Your task to perform on an android device: check the backup settings in the google photos Image 0: 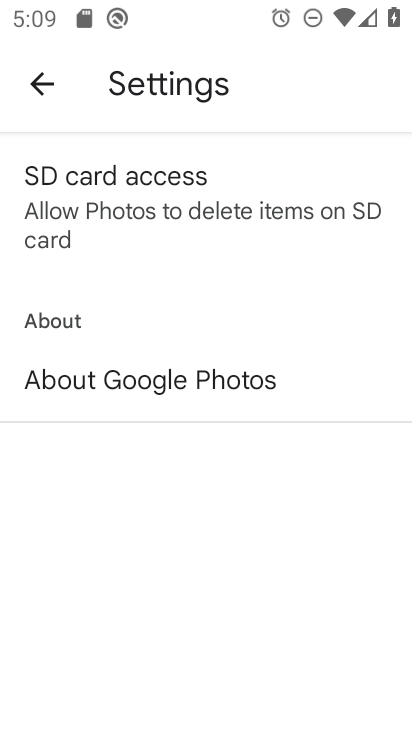
Step 0: press home button
Your task to perform on an android device: check the backup settings in the google photos Image 1: 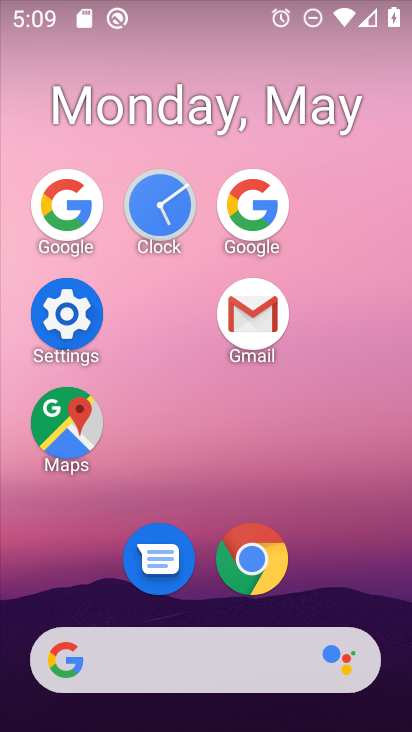
Step 1: drag from (326, 576) to (308, 76)
Your task to perform on an android device: check the backup settings in the google photos Image 2: 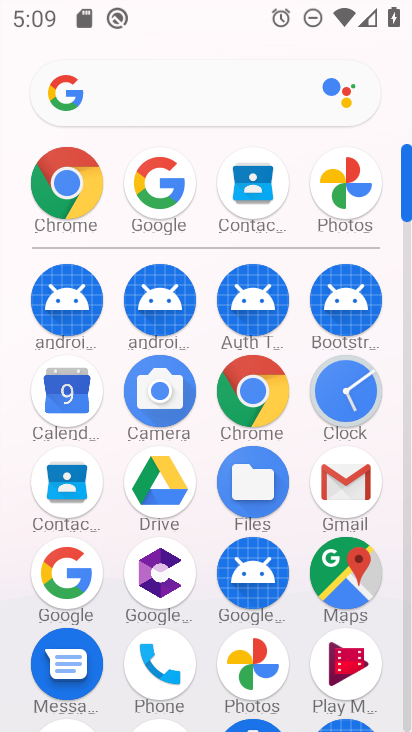
Step 2: click (366, 162)
Your task to perform on an android device: check the backup settings in the google photos Image 3: 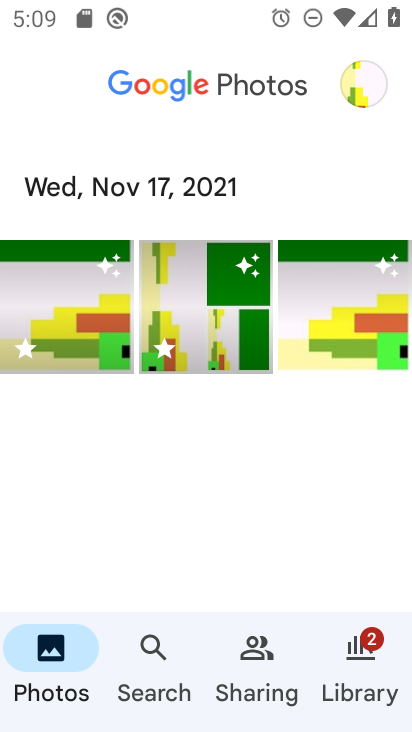
Step 3: click (357, 74)
Your task to perform on an android device: check the backup settings in the google photos Image 4: 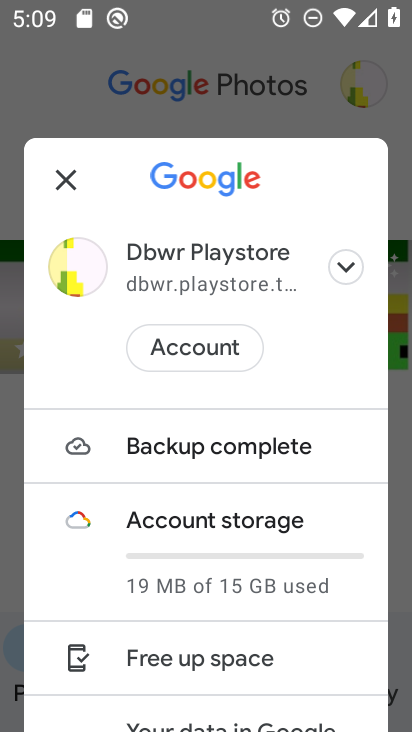
Step 4: drag from (254, 567) to (282, 196)
Your task to perform on an android device: check the backup settings in the google photos Image 5: 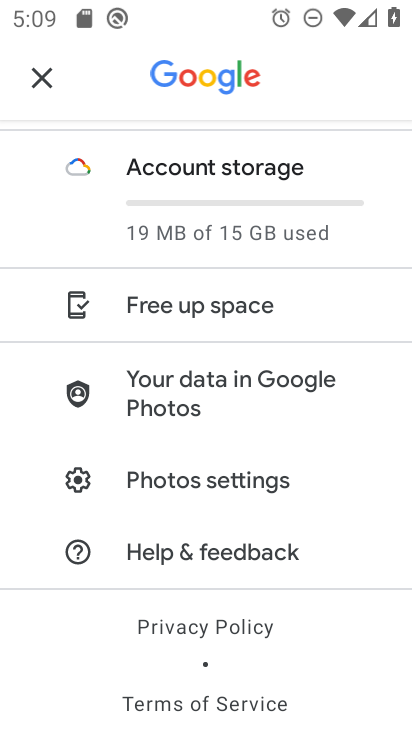
Step 5: click (224, 495)
Your task to perform on an android device: check the backup settings in the google photos Image 6: 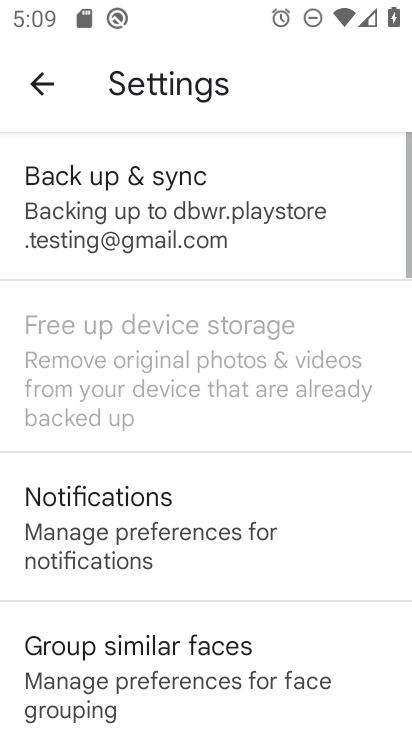
Step 6: click (220, 226)
Your task to perform on an android device: check the backup settings in the google photos Image 7: 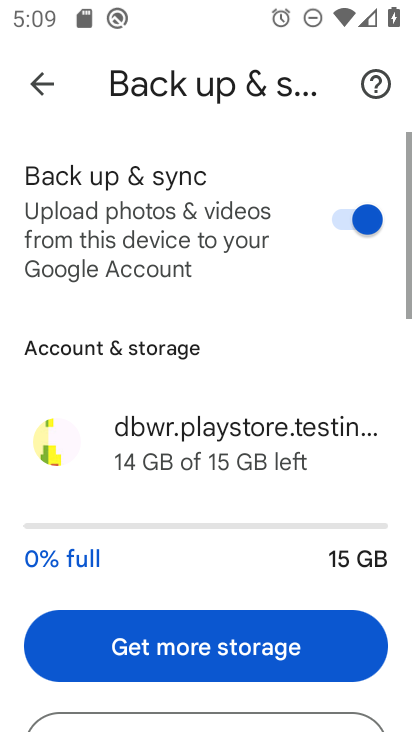
Step 7: task complete